Your task to perform on an android device: What's the weather going to be tomorrow? Image 0: 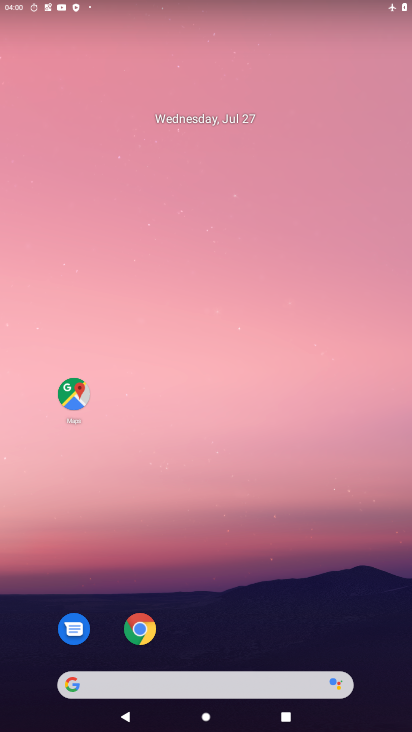
Step 0: drag from (312, 618) to (262, 114)
Your task to perform on an android device: What's the weather going to be tomorrow? Image 1: 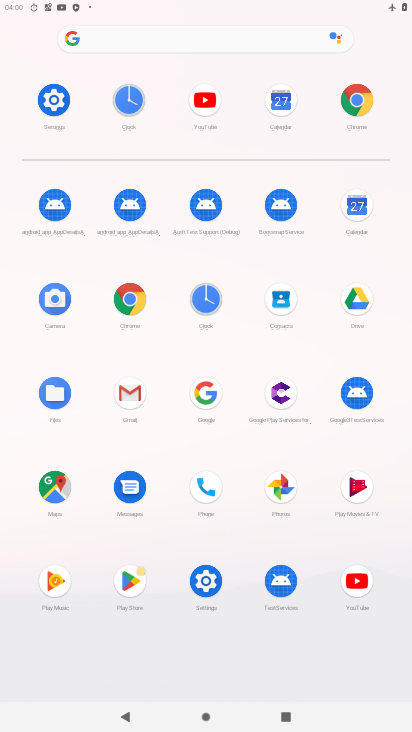
Step 1: click (116, 298)
Your task to perform on an android device: What's the weather going to be tomorrow? Image 2: 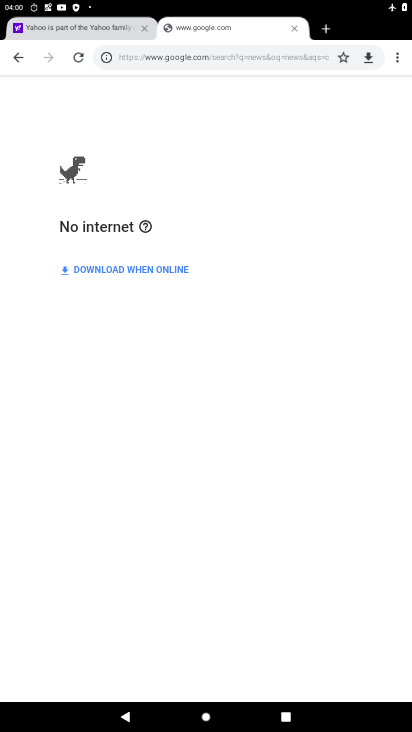
Step 2: click (265, 54)
Your task to perform on an android device: What's the weather going to be tomorrow? Image 3: 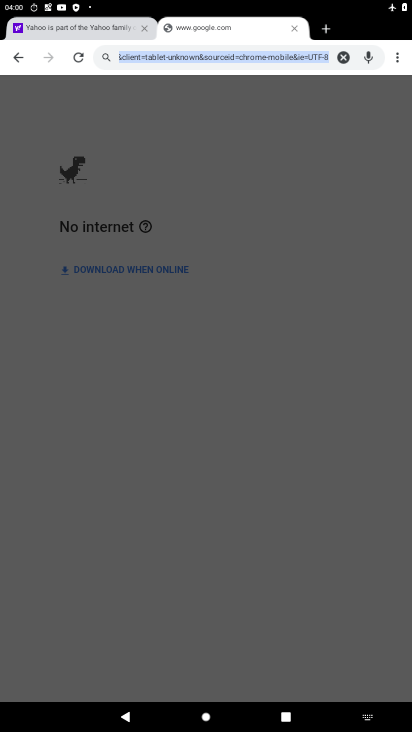
Step 3: type "weather"
Your task to perform on an android device: What's the weather going to be tomorrow? Image 4: 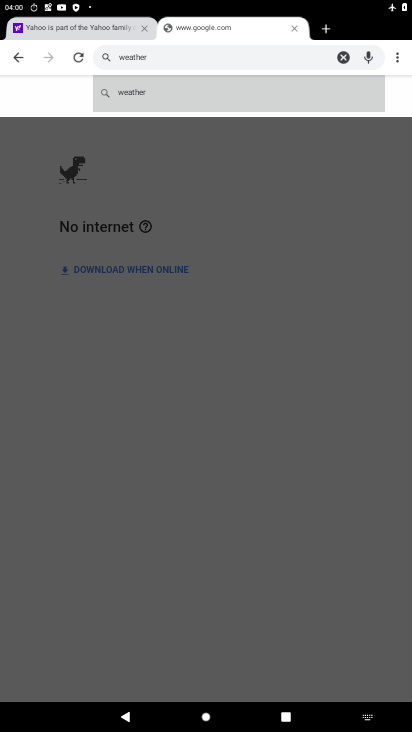
Step 4: click (220, 90)
Your task to perform on an android device: What's the weather going to be tomorrow? Image 5: 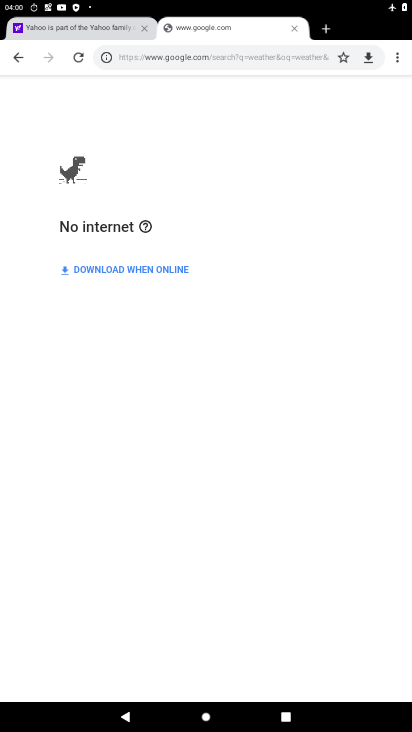
Step 5: task complete